Your task to perform on an android device: Go to Reddit.com Image 0: 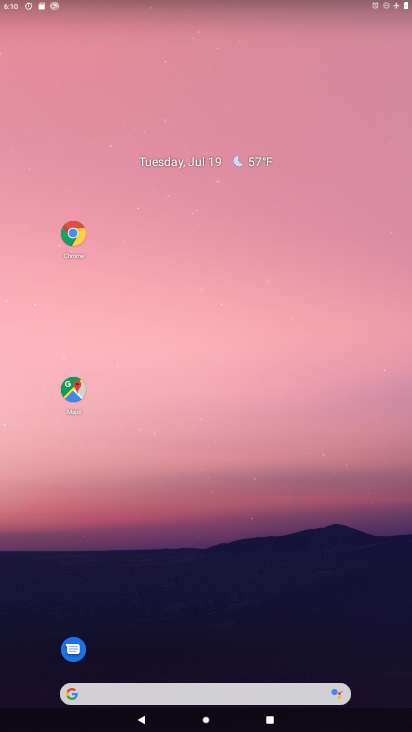
Step 0: drag from (235, 617) to (180, 150)
Your task to perform on an android device: Go to Reddit.com Image 1: 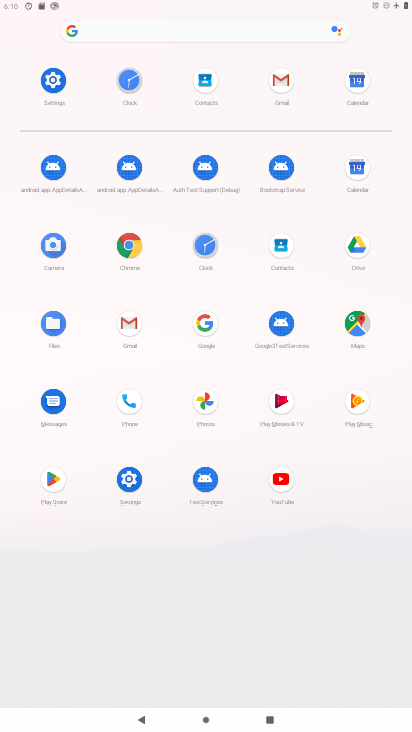
Step 1: click (125, 253)
Your task to perform on an android device: Go to Reddit.com Image 2: 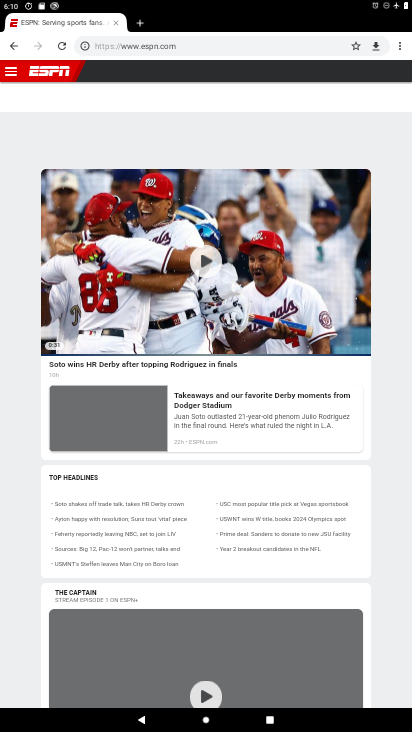
Step 2: click (164, 51)
Your task to perform on an android device: Go to Reddit.com Image 3: 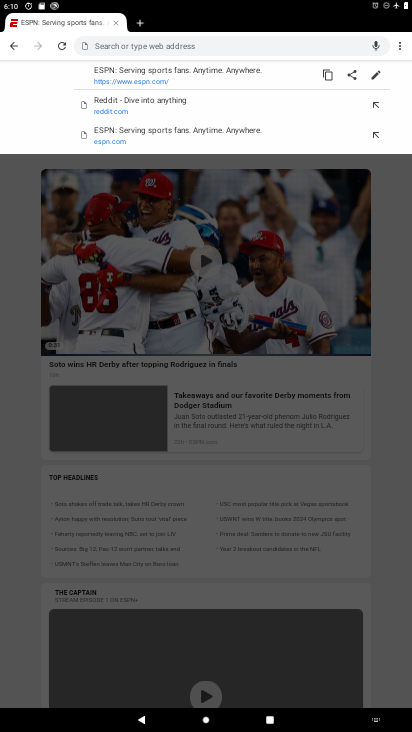
Step 3: type "www.reddit.com"
Your task to perform on an android device: Go to Reddit.com Image 4: 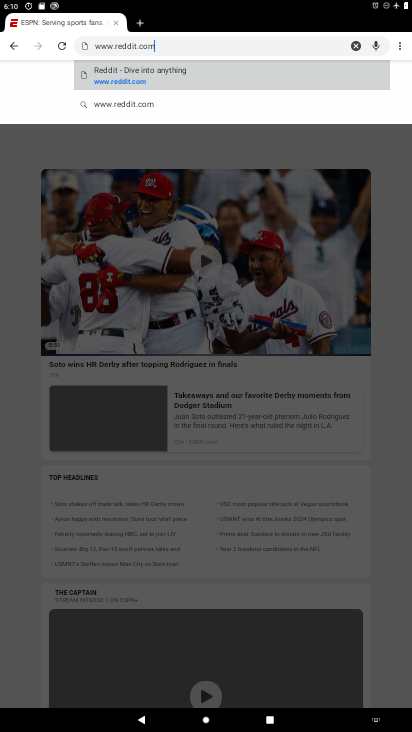
Step 4: click (98, 81)
Your task to perform on an android device: Go to Reddit.com Image 5: 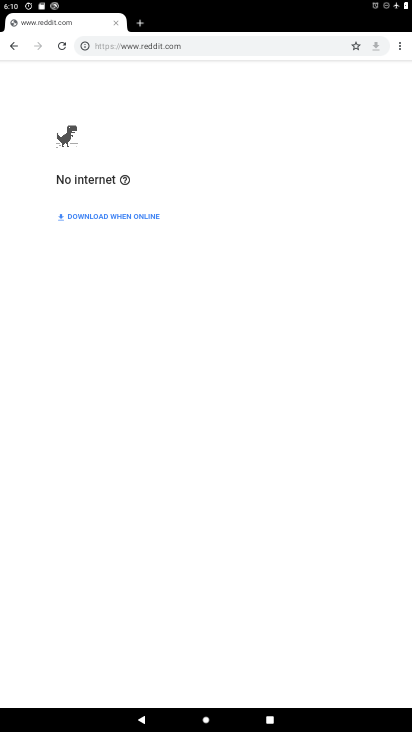
Step 5: task complete